Your task to perform on an android device: Open Google Maps Image 0: 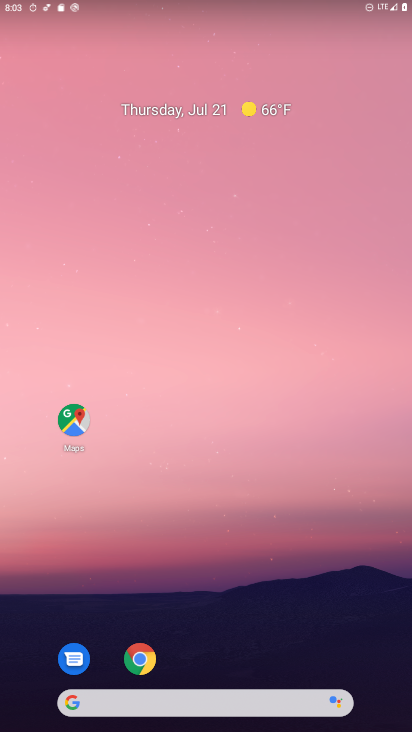
Step 0: drag from (193, 661) to (323, 0)
Your task to perform on an android device: Open Google Maps Image 1: 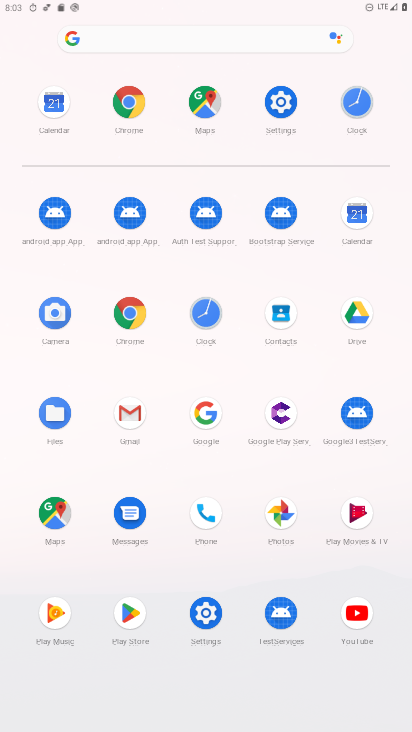
Step 1: click (50, 514)
Your task to perform on an android device: Open Google Maps Image 2: 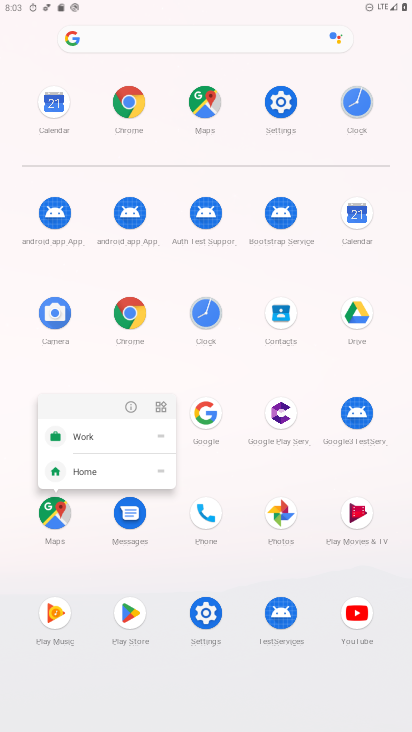
Step 2: click (128, 405)
Your task to perform on an android device: Open Google Maps Image 3: 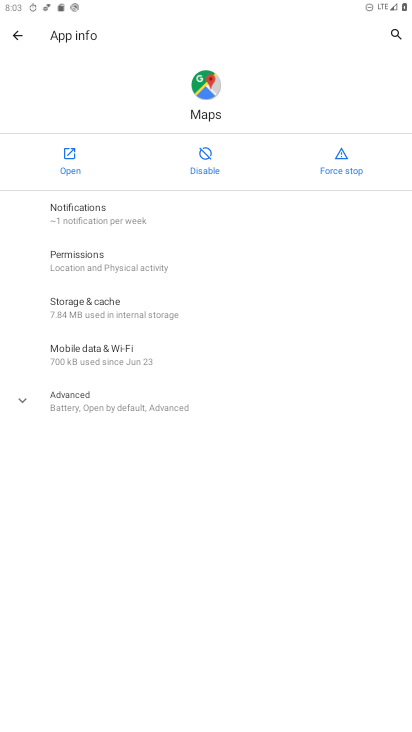
Step 3: click (67, 153)
Your task to perform on an android device: Open Google Maps Image 4: 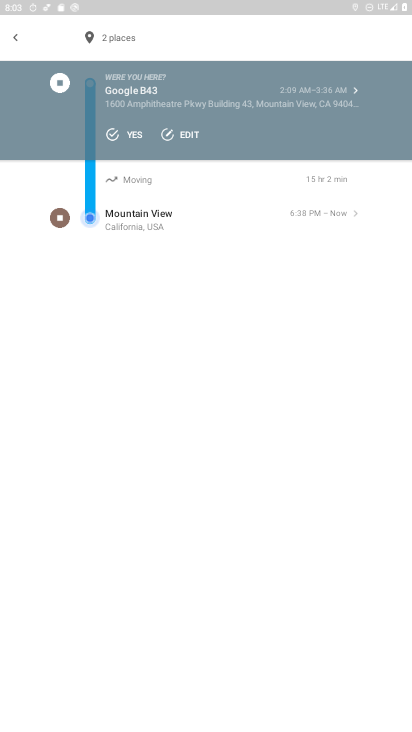
Step 4: task complete